Your task to perform on an android device: turn off location history Image 0: 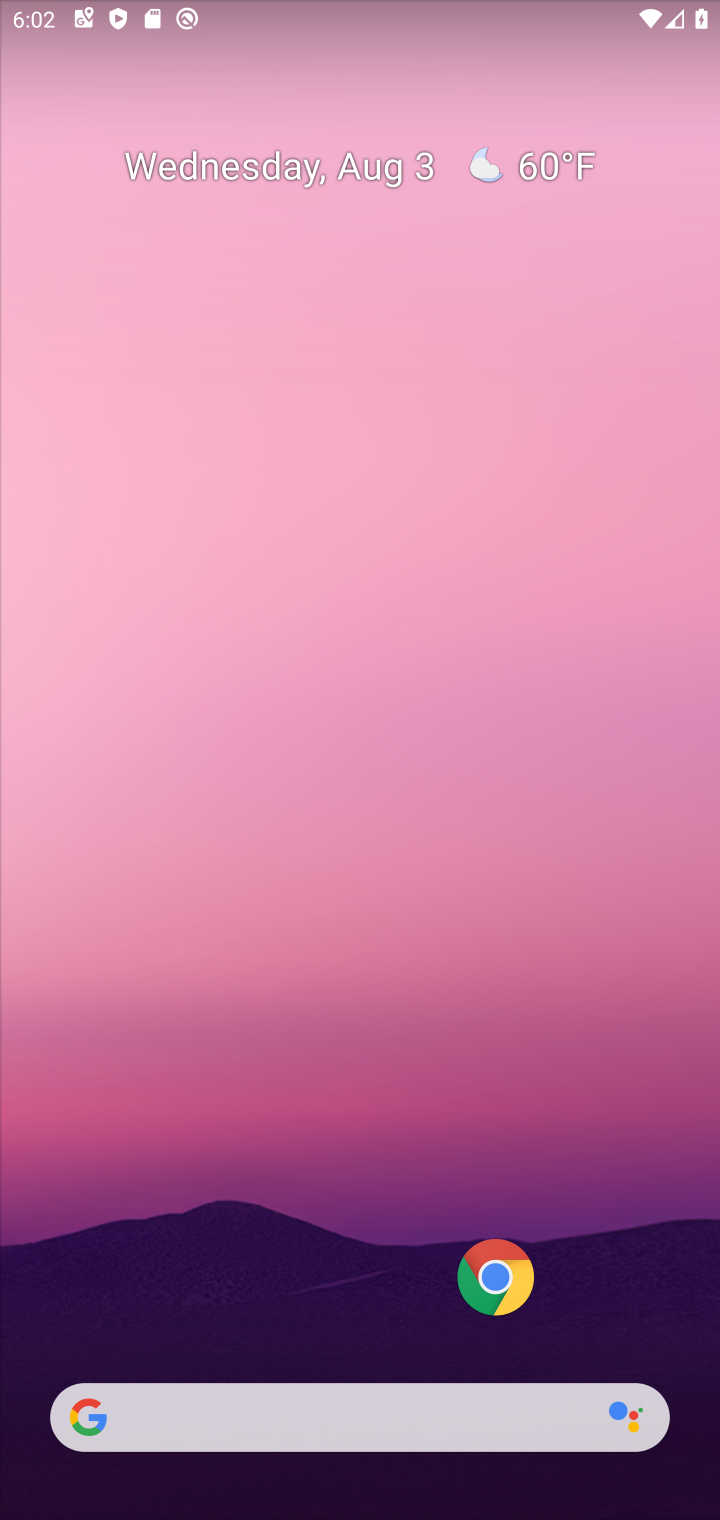
Step 0: drag from (331, 1247) to (484, 21)
Your task to perform on an android device: turn off location history Image 1: 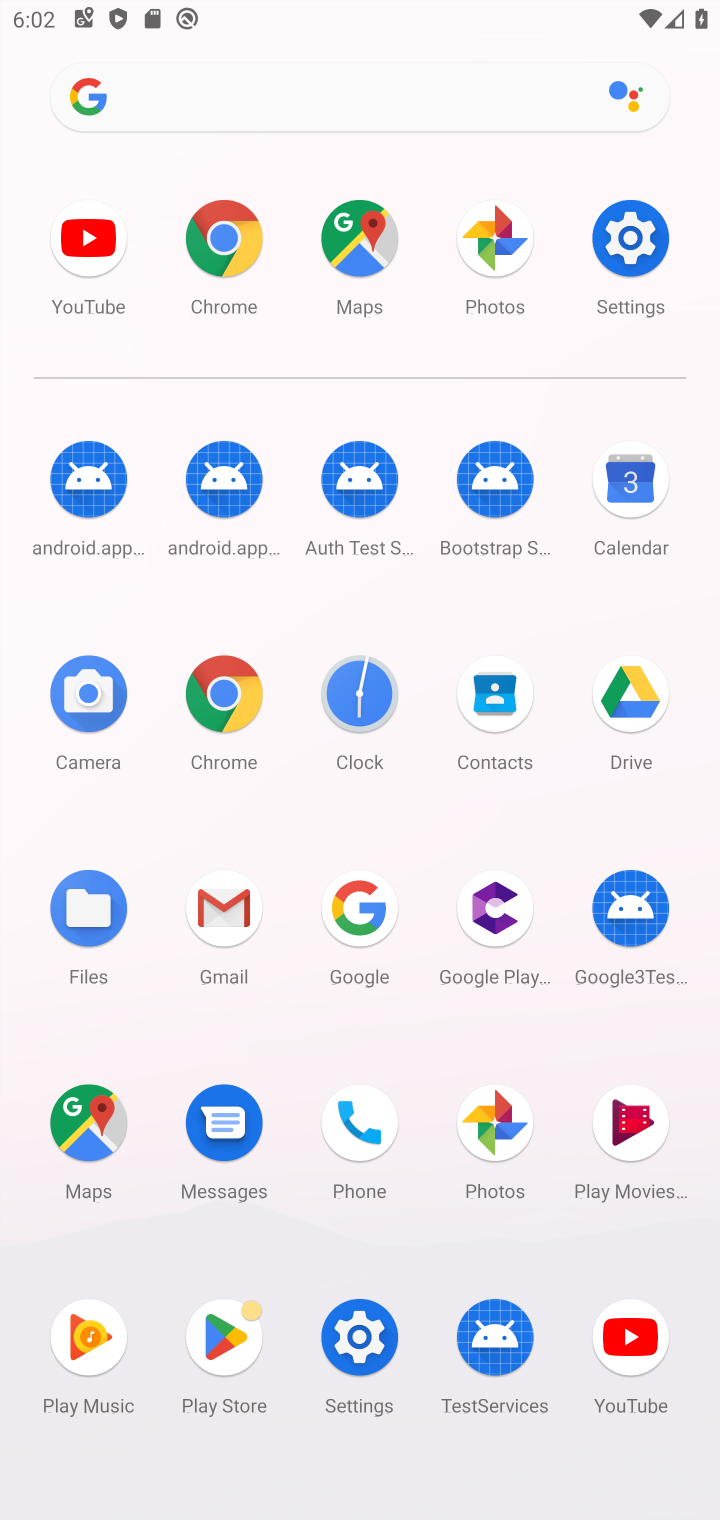
Step 1: click (642, 249)
Your task to perform on an android device: turn off location history Image 2: 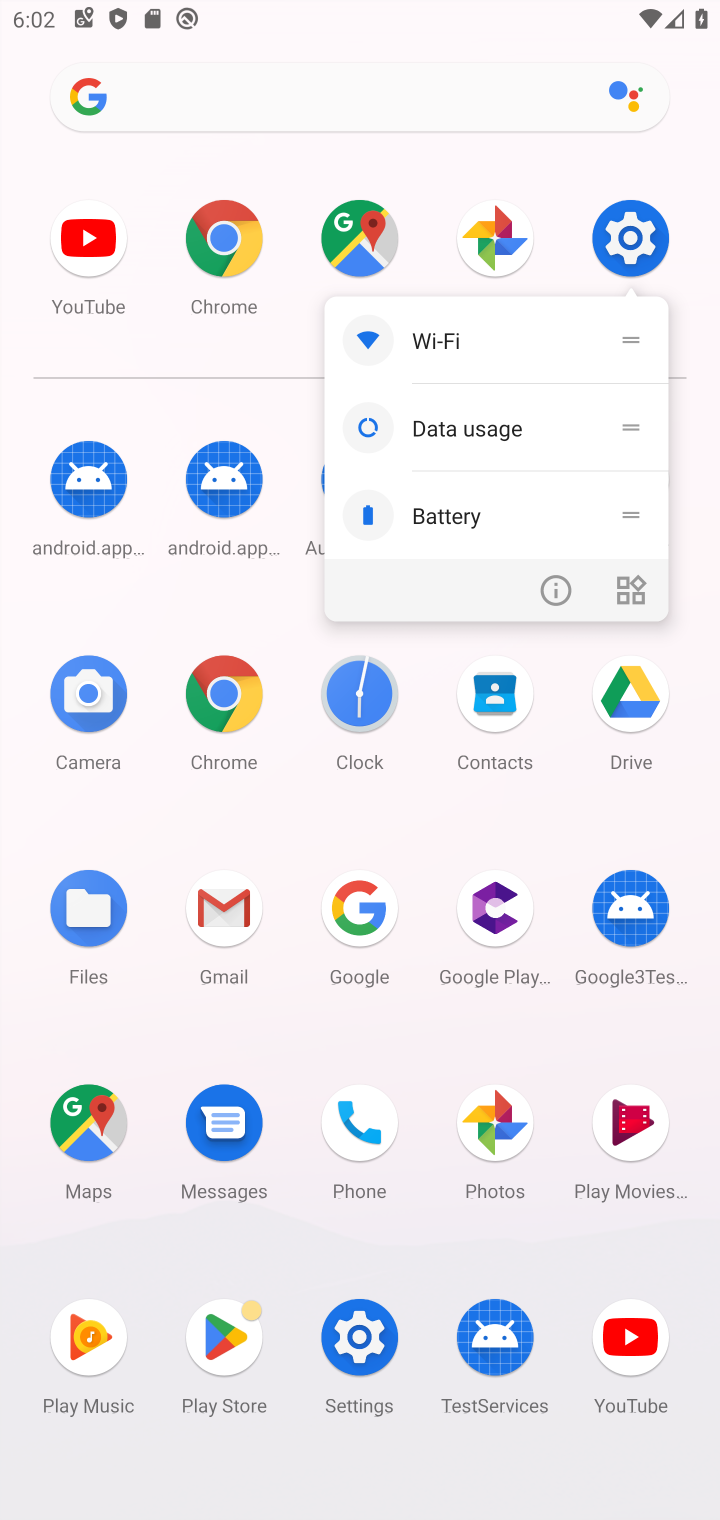
Step 2: click (642, 249)
Your task to perform on an android device: turn off location history Image 3: 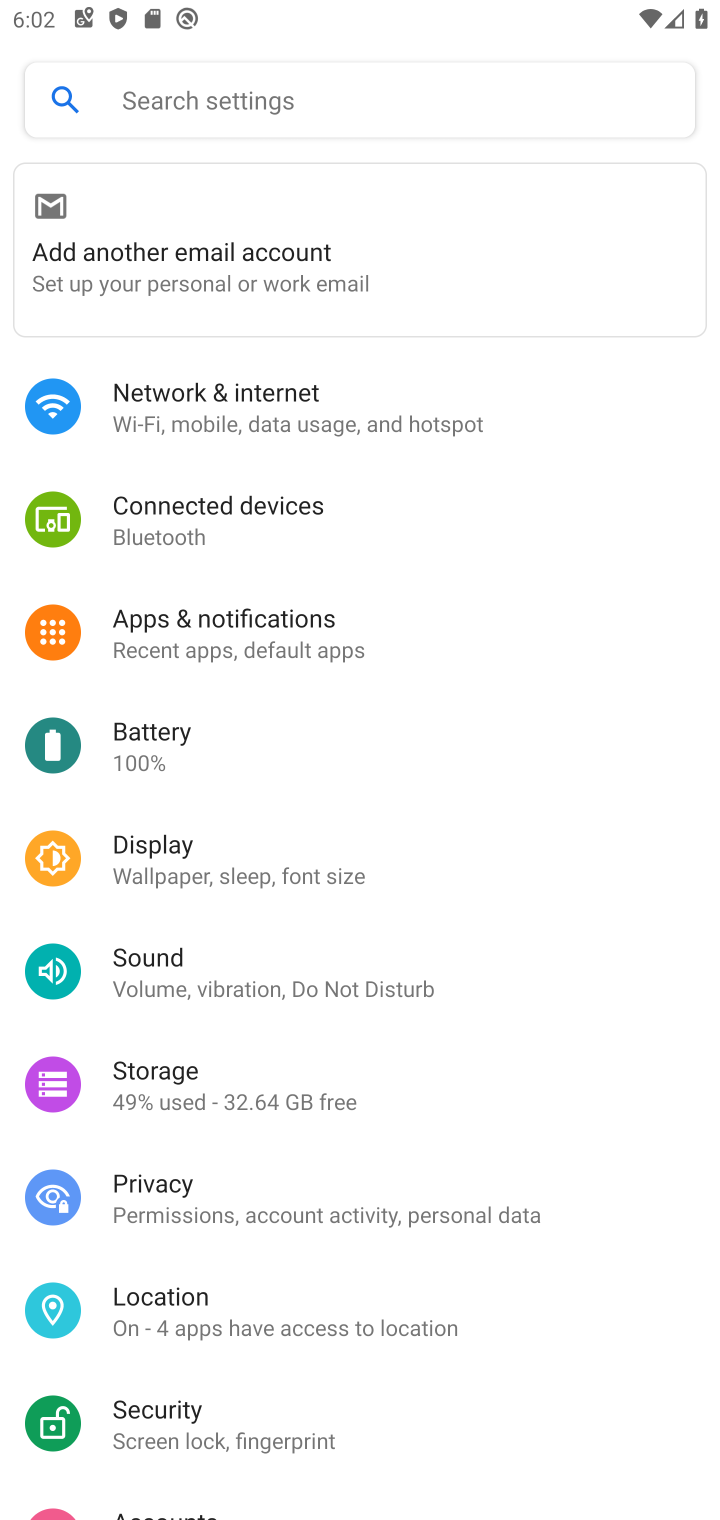
Step 3: click (171, 1318)
Your task to perform on an android device: turn off location history Image 4: 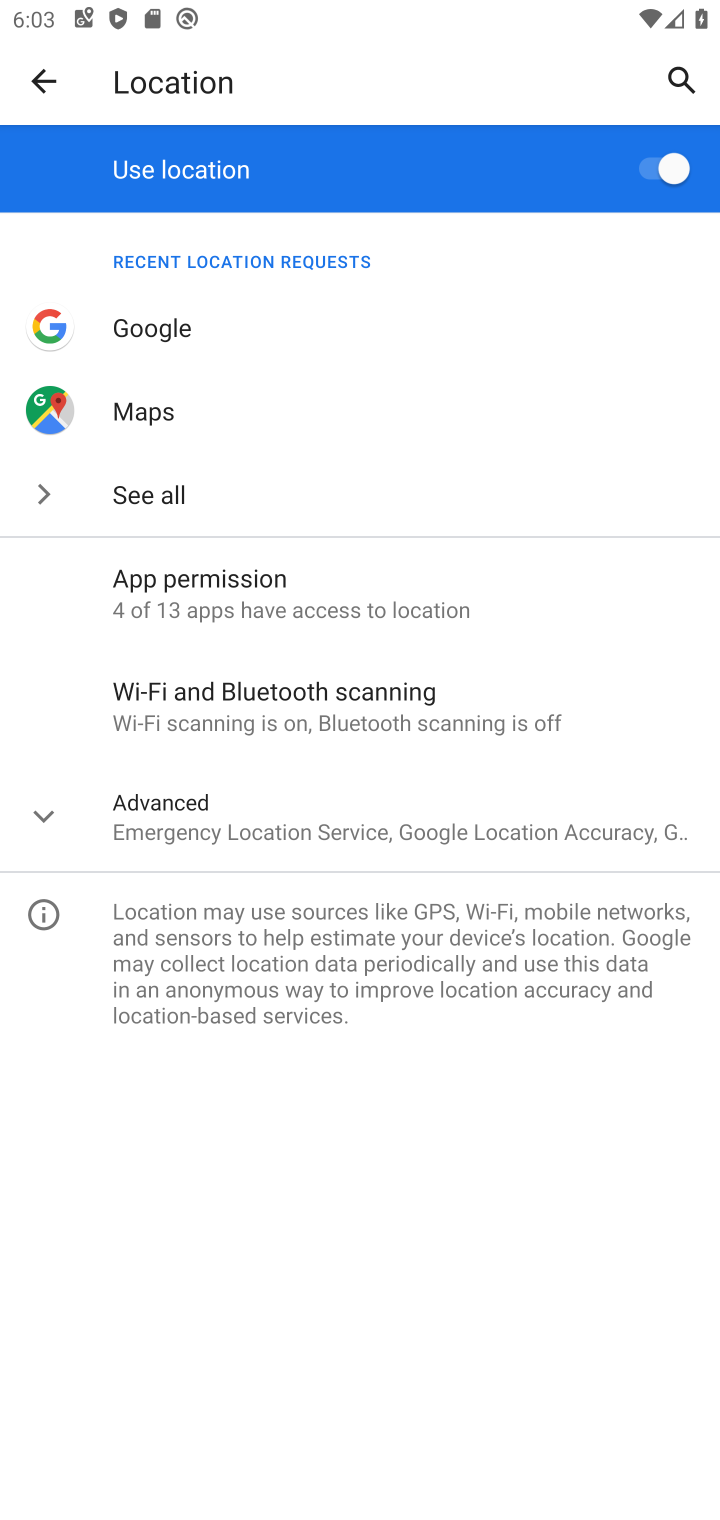
Step 4: click (243, 820)
Your task to perform on an android device: turn off location history Image 5: 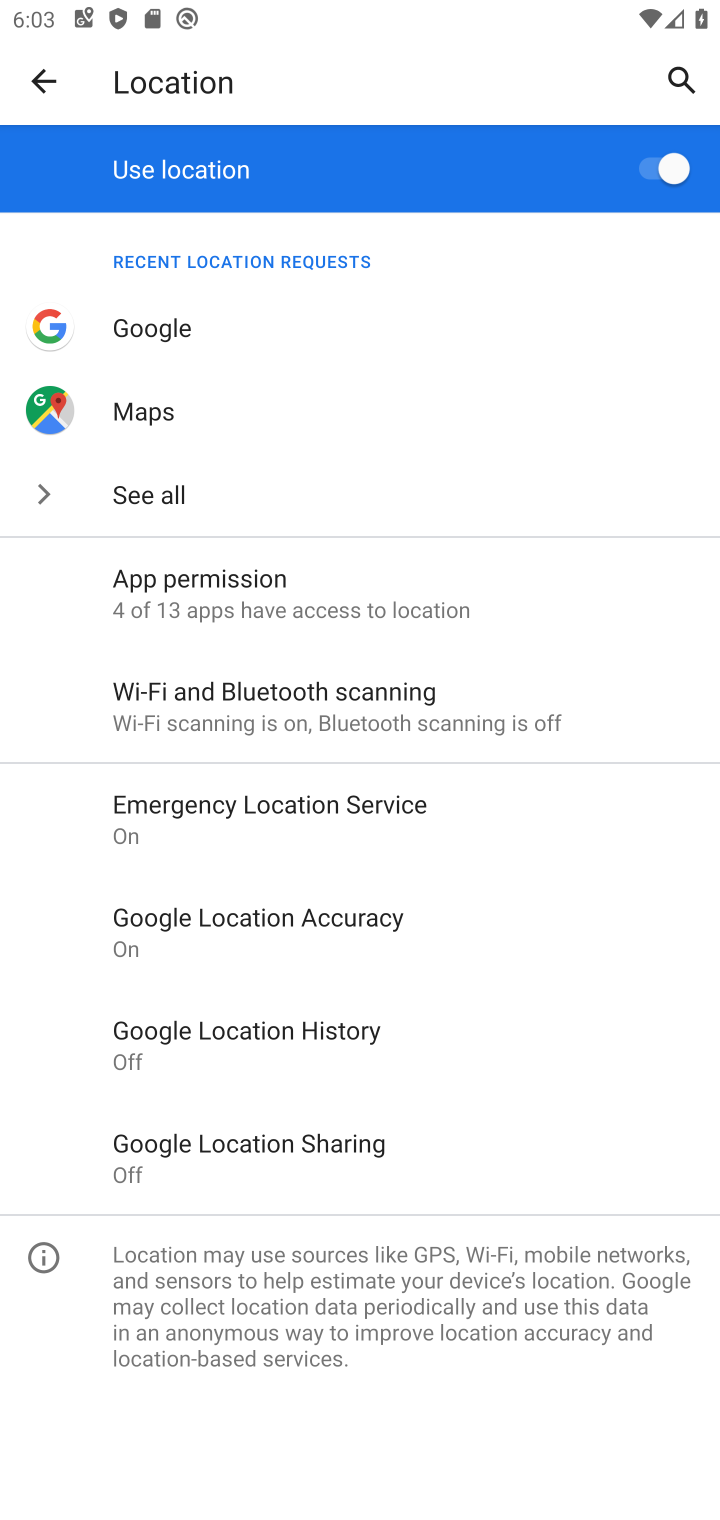
Step 5: click (329, 1040)
Your task to perform on an android device: turn off location history Image 6: 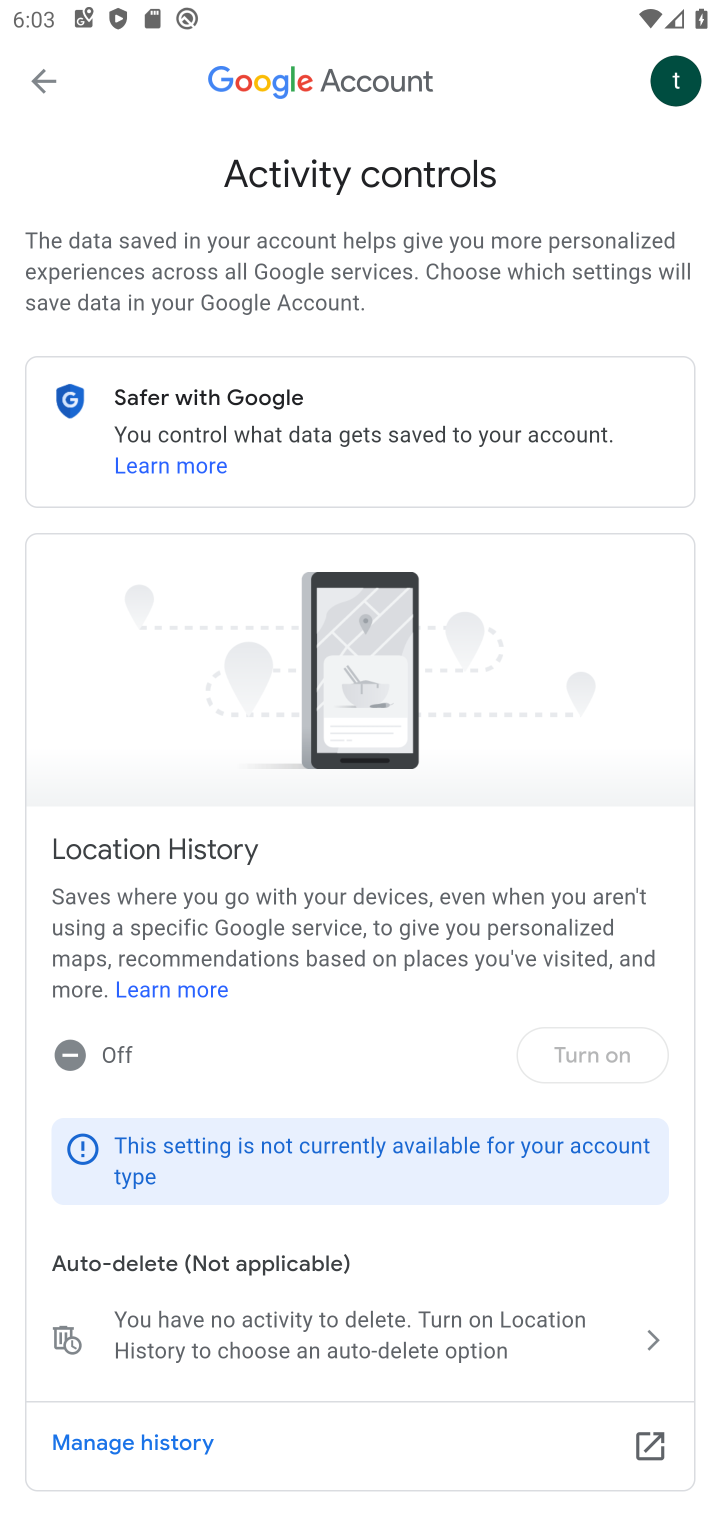
Step 6: task complete